Your task to perform on an android device: View the shopping cart on bestbuy. Search for "apple airpods" on bestbuy, select the first entry, and add it to the cart. Image 0: 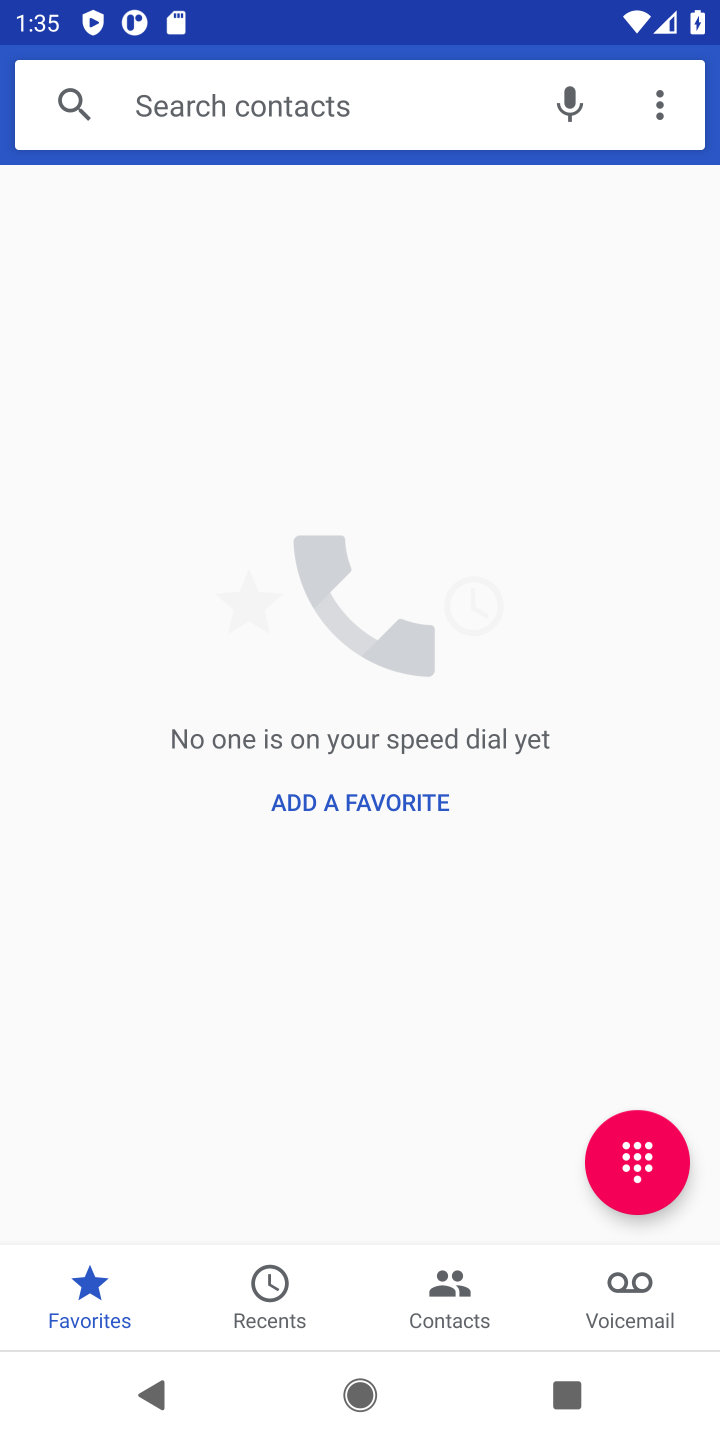
Step 0: press home button
Your task to perform on an android device: View the shopping cart on bestbuy. Search for "apple airpods" on bestbuy, select the first entry, and add it to the cart. Image 1: 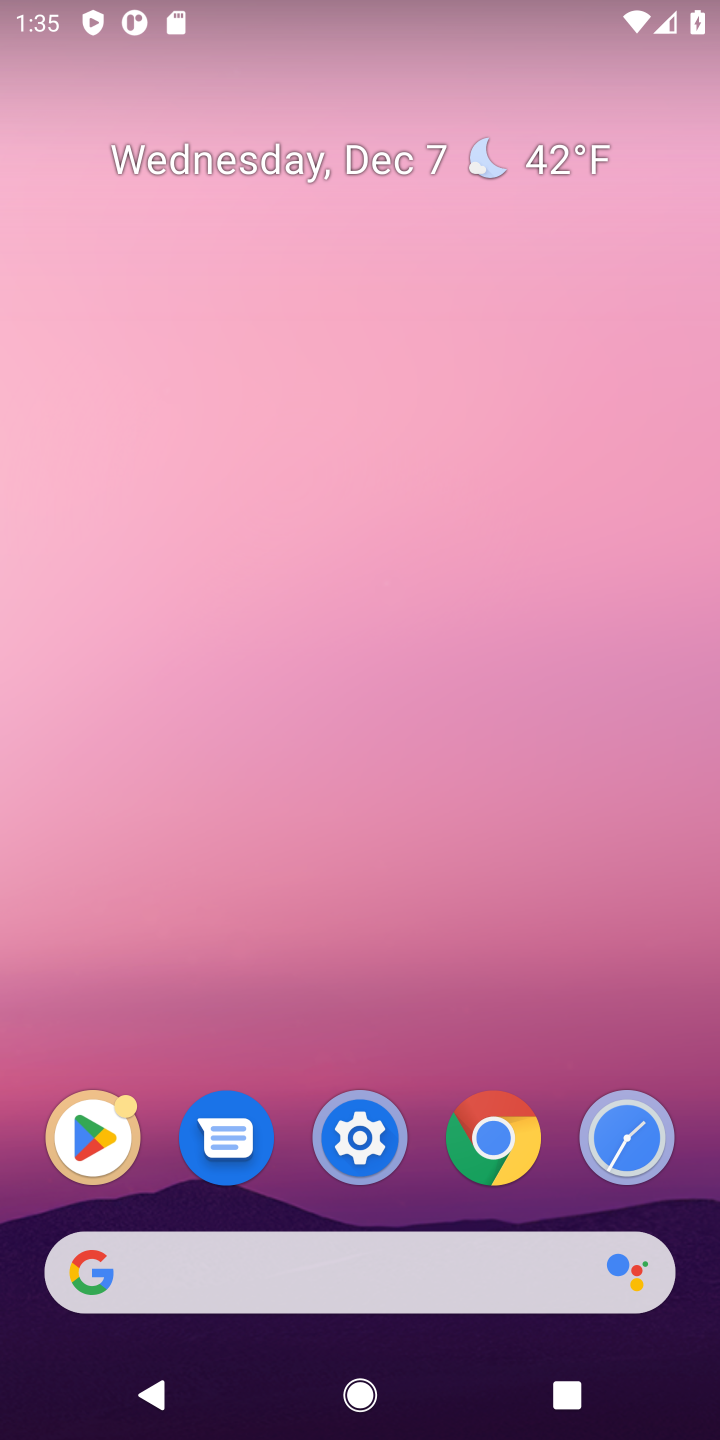
Step 1: click (281, 1300)
Your task to perform on an android device: View the shopping cart on bestbuy. Search for "apple airpods" on bestbuy, select the first entry, and add it to the cart. Image 2: 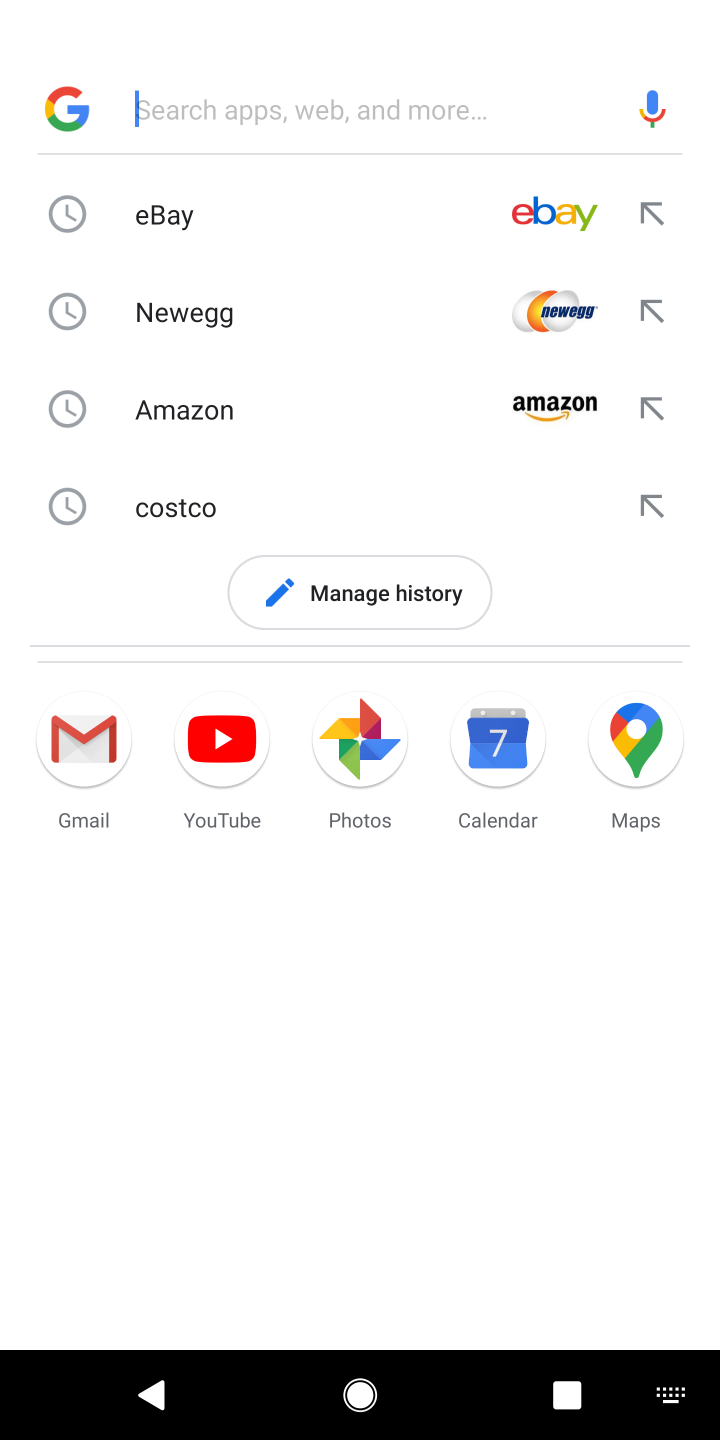
Step 2: type "bestbuy"
Your task to perform on an android device: View the shopping cart on bestbuy. Search for "apple airpods" on bestbuy, select the first entry, and add it to the cart. Image 3: 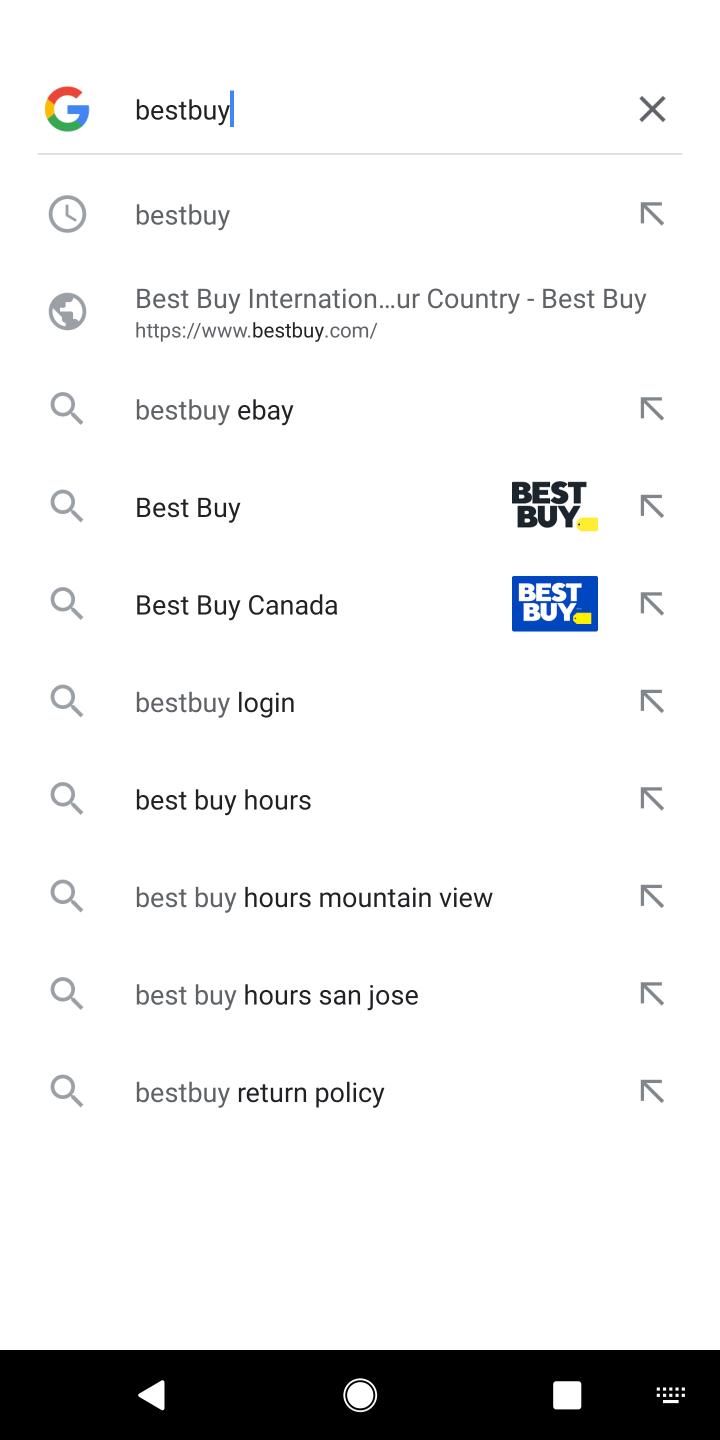
Step 3: click (228, 524)
Your task to perform on an android device: View the shopping cart on bestbuy. Search for "apple airpods" on bestbuy, select the first entry, and add it to the cart. Image 4: 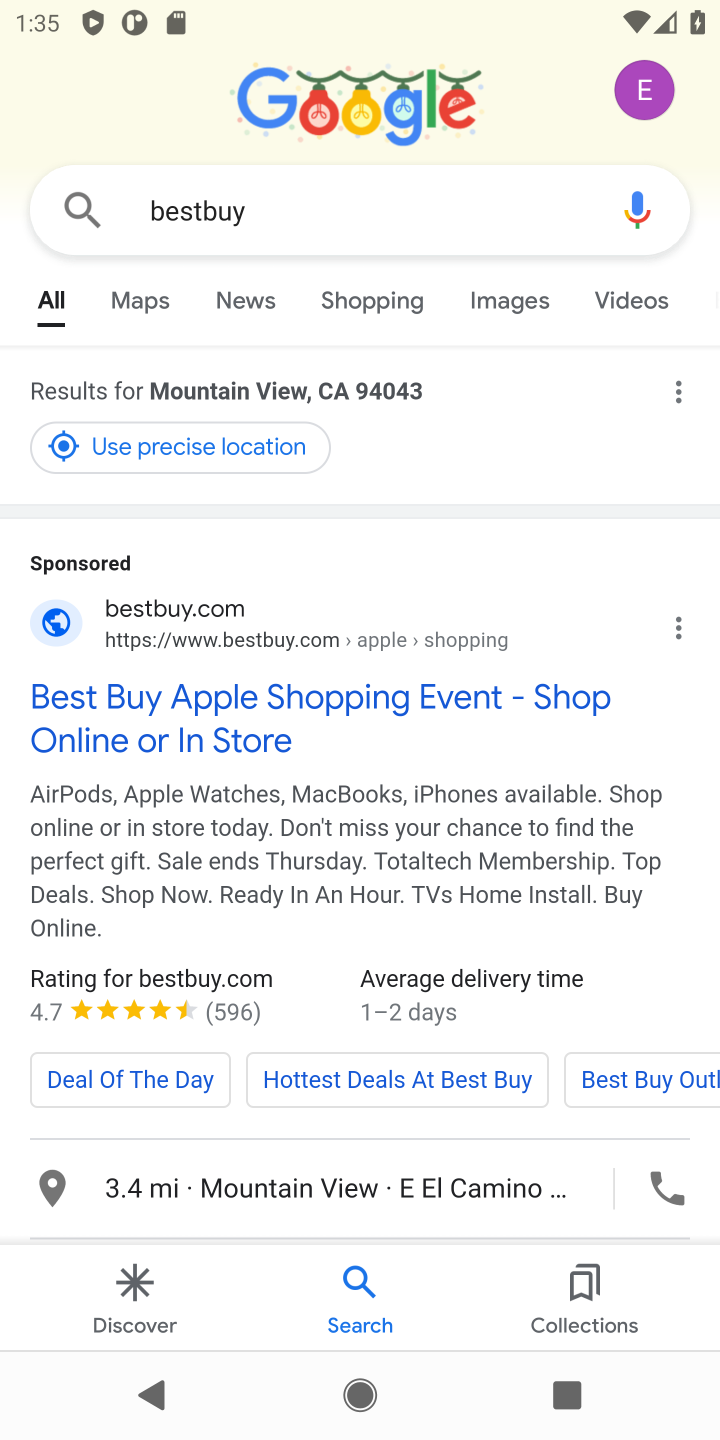
Step 4: click (155, 700)
Your task to perform on an android device: View the shopping cart on bestbuy. Search for "apple airpods" on bestbuy, select the first entry, and add it to the cart. Image 5: 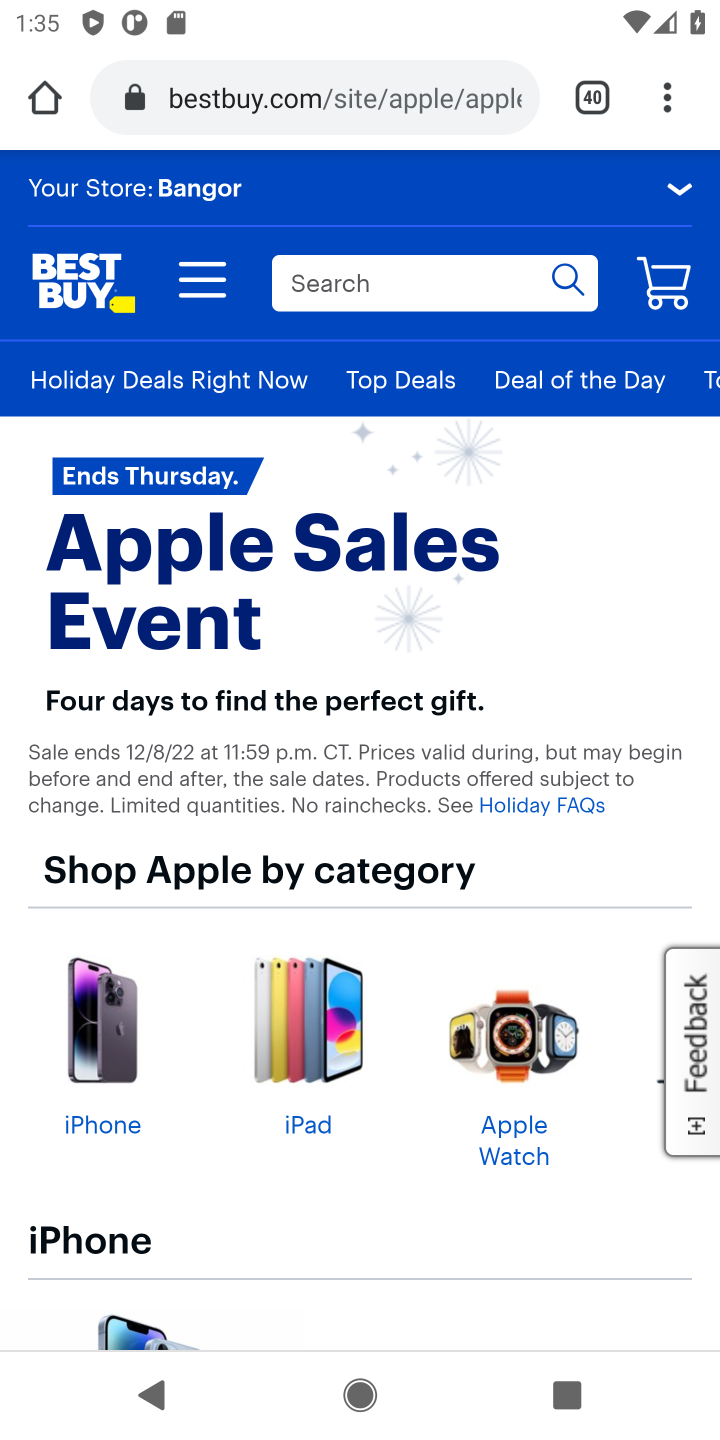
Step 5: click (392, 274)
Your task to perform on an android device: View the shopping cart on bestbuy. Search for "apple airpods" on bestbuy, select the first entry, and add it to the cart. Image 6: 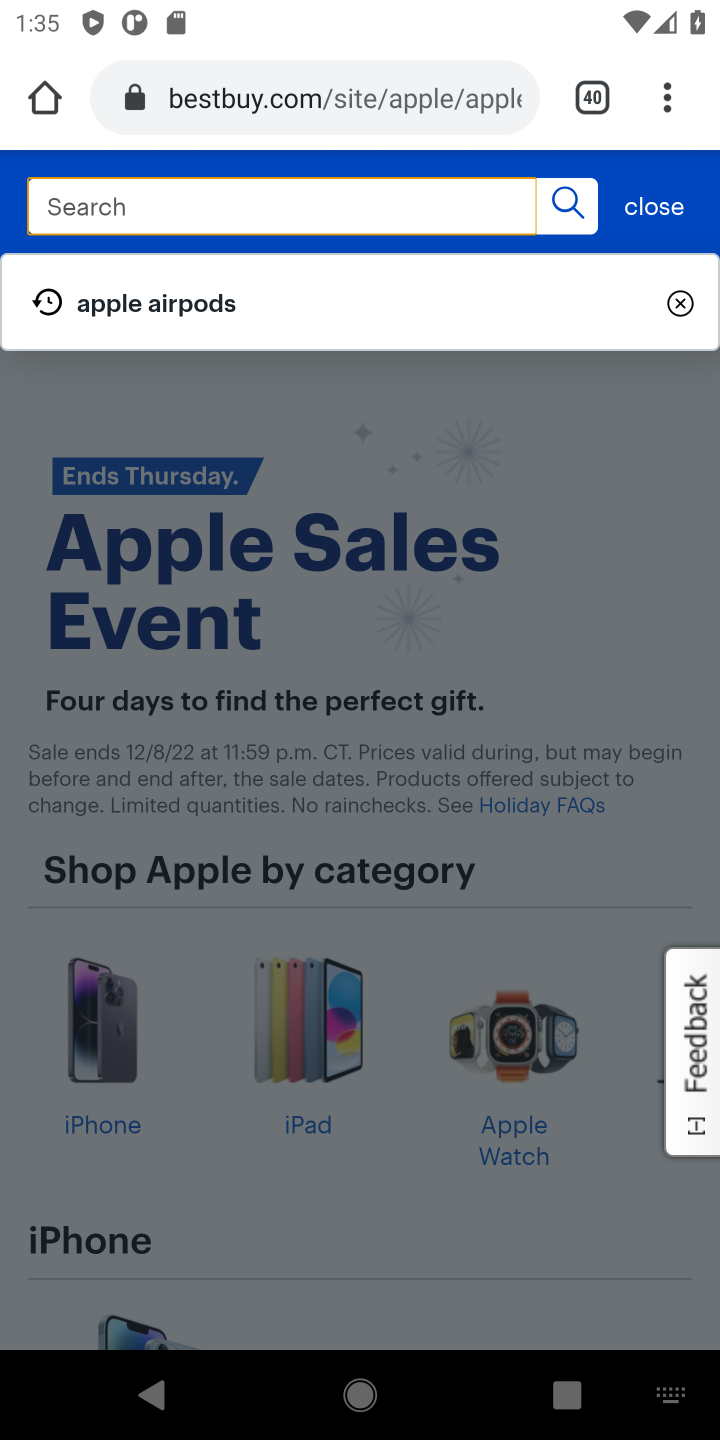
Step 6: type "apple airpod"
Your task to perform on an android device: View the shopping cart on bestbuy. Search for "apple airpods" on bestbuy, select the first entry, and add it to the cart. Image 7: 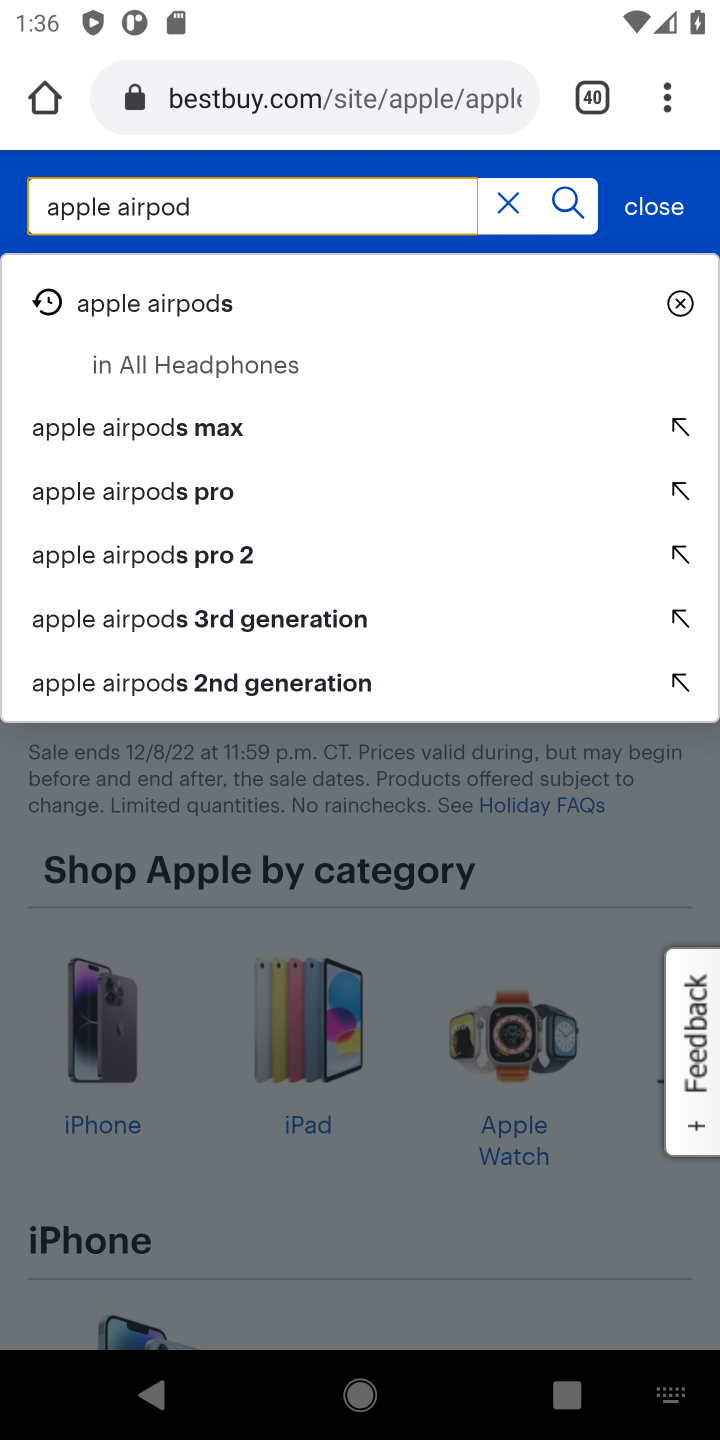
Step 7: click (171, 298)
Your task to perform on an android device: View the shopping cart on bestbuy. Search for "apple airpods" on bestbuy, select the first entry, and add it to the cart. Image 8: 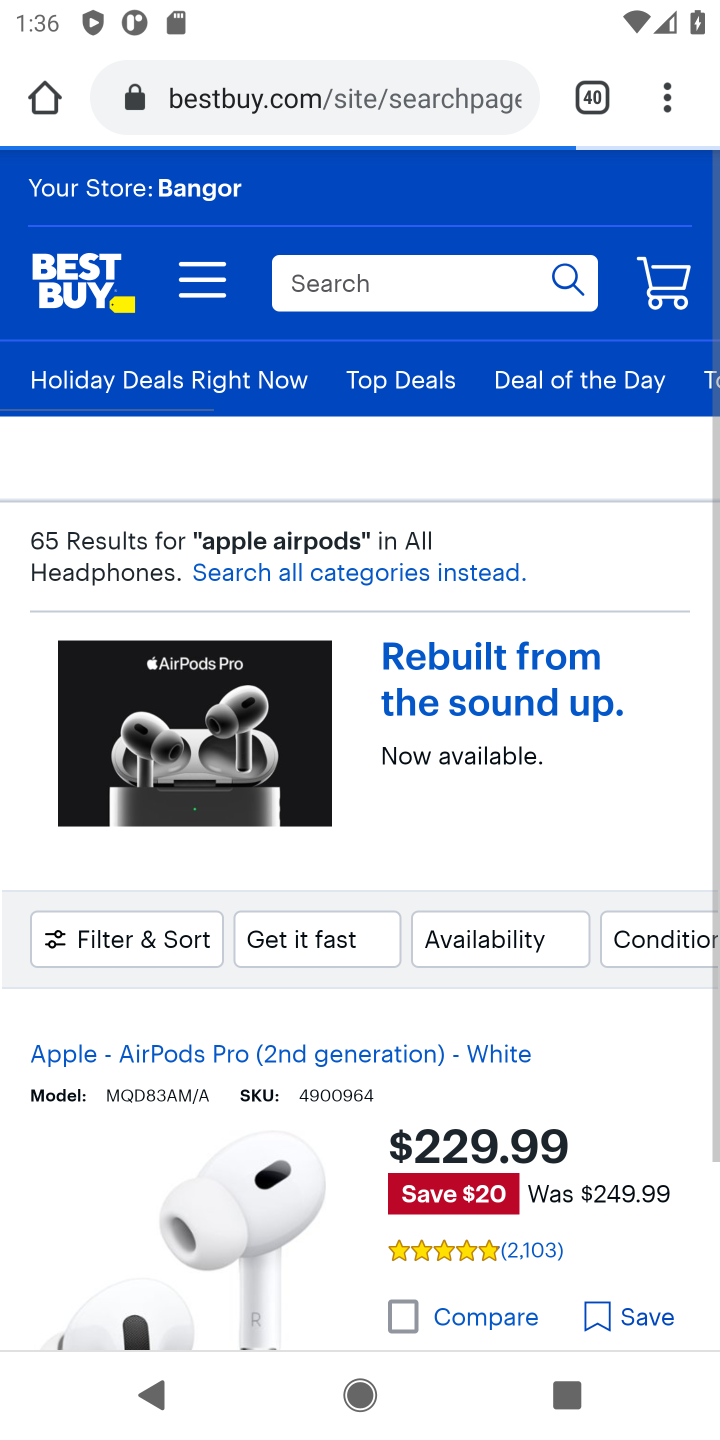
Step 8: click (554, 216)
Your task to perform on an android device: View the shopping cart on bestbuy. Search for "apple airpods" on bestbuy, select the first entry, and add it to the cart. Image 9: 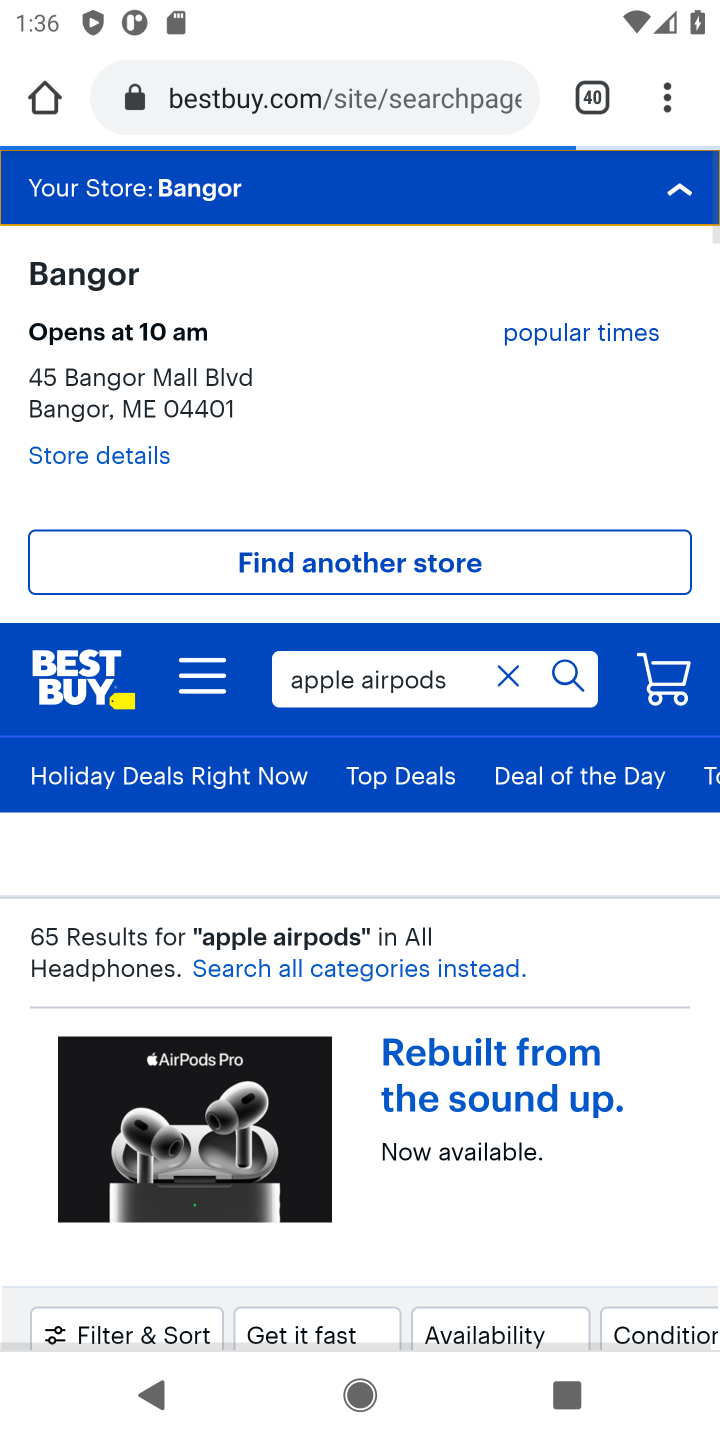
Step 9: click (450, 1131)
Your task to perform on an android device: View the shopping cart on bestbuy. Search for "apple airpods" on bestbuy, select the first entry, and add it to the cart. Image 10: 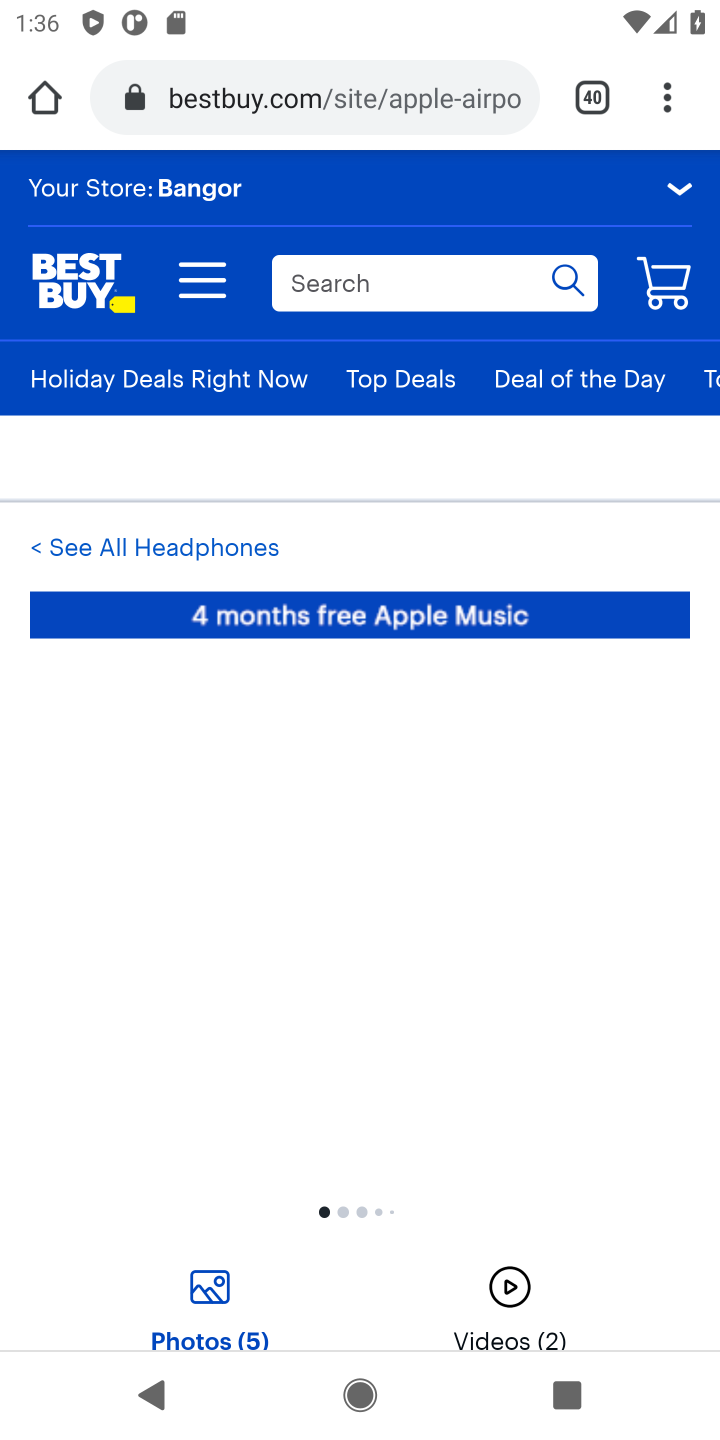
Step 10: task complete